Your task to perform on an android device: Open wifi settings Image 0: 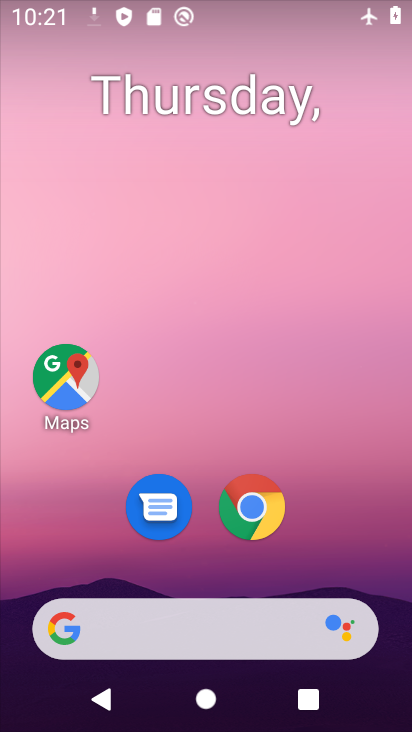
Step 0: drag from (353, 550) to (311, 40)
Your task to perform on an android device: Open wifi settings Image 1: 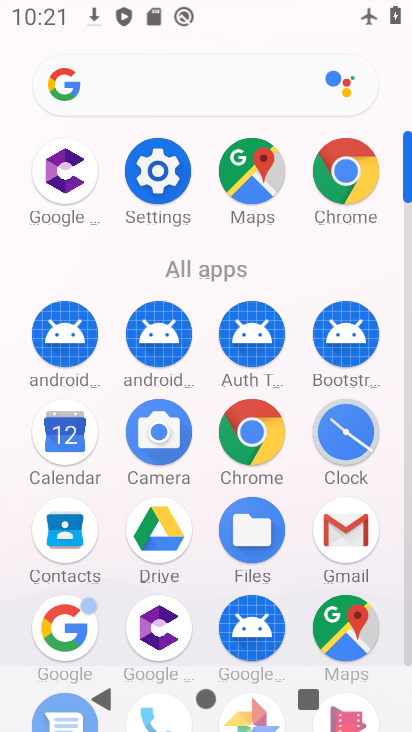
Step 1: click (157, 170)
Your task to perform on an android device: Open wifi settings Image 2: 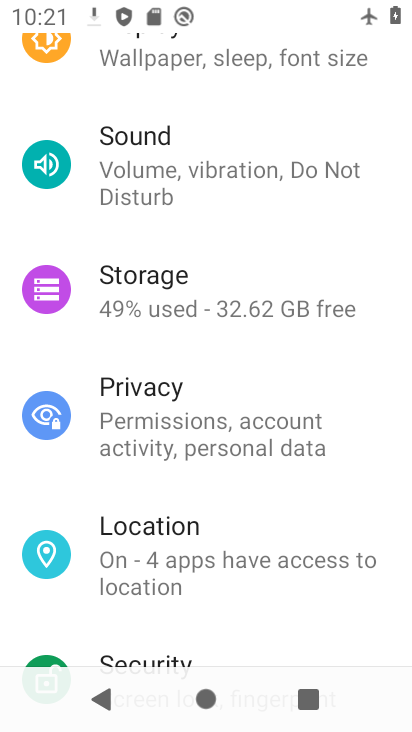
Step 2: drag from (227, 140) to (208, 563)
Your task to perform on an android device: Open wifi settings Image 3: 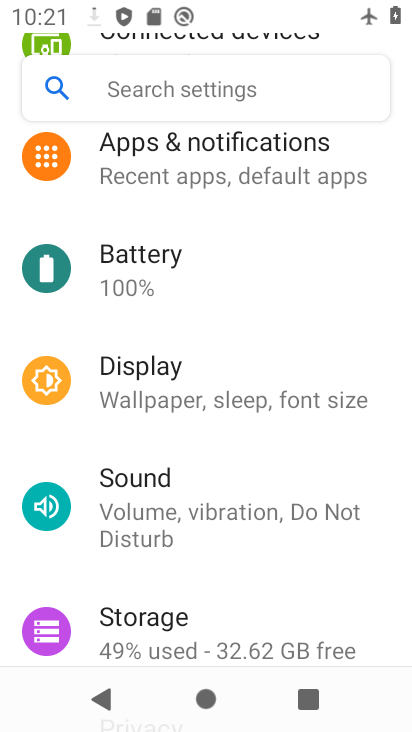
Step 3: drag from (287, 254) to (244, 617)
Your task to perform on an android device: Open wifi settings Image 4: 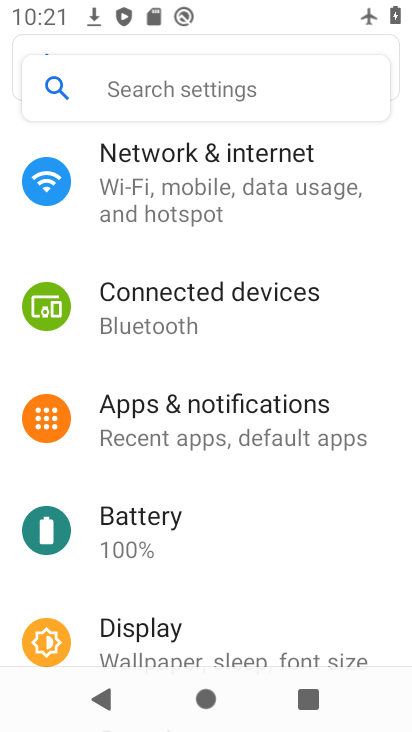
Step 4: click (254, 183)
Your task to perform on an android device: Open wifi settings Image 5: 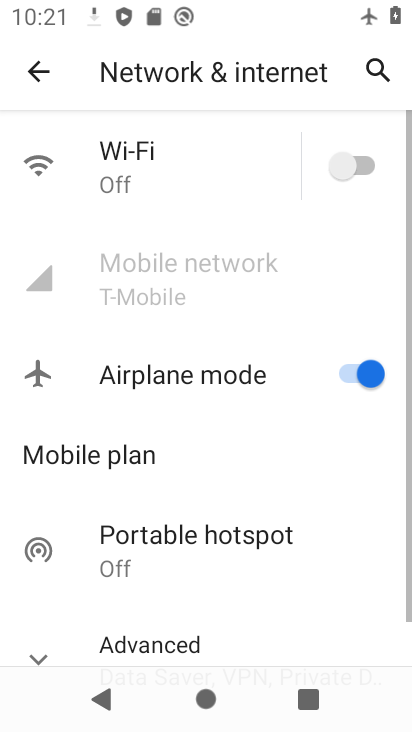
Step 5: click (177, 163)
Your task to perform on an android device: Open wifi settings Image 6: 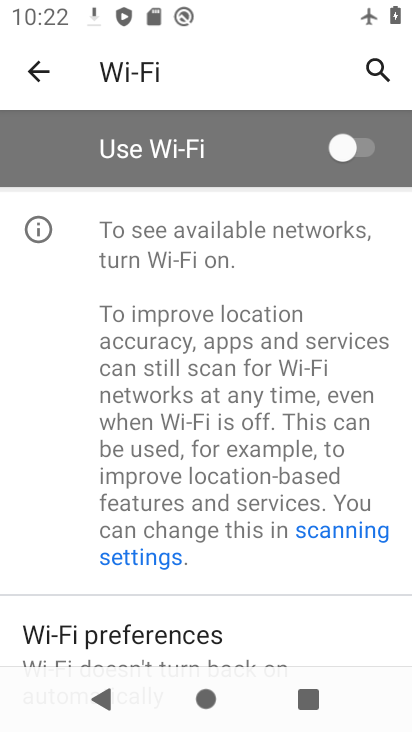
Step 6: task complete